Your task to perform on an android device: Clear the shopping cart on target.com. Search for jbl flip 4 on target.com, select the first entry, add it to the cart, then select checkout. Image 0: 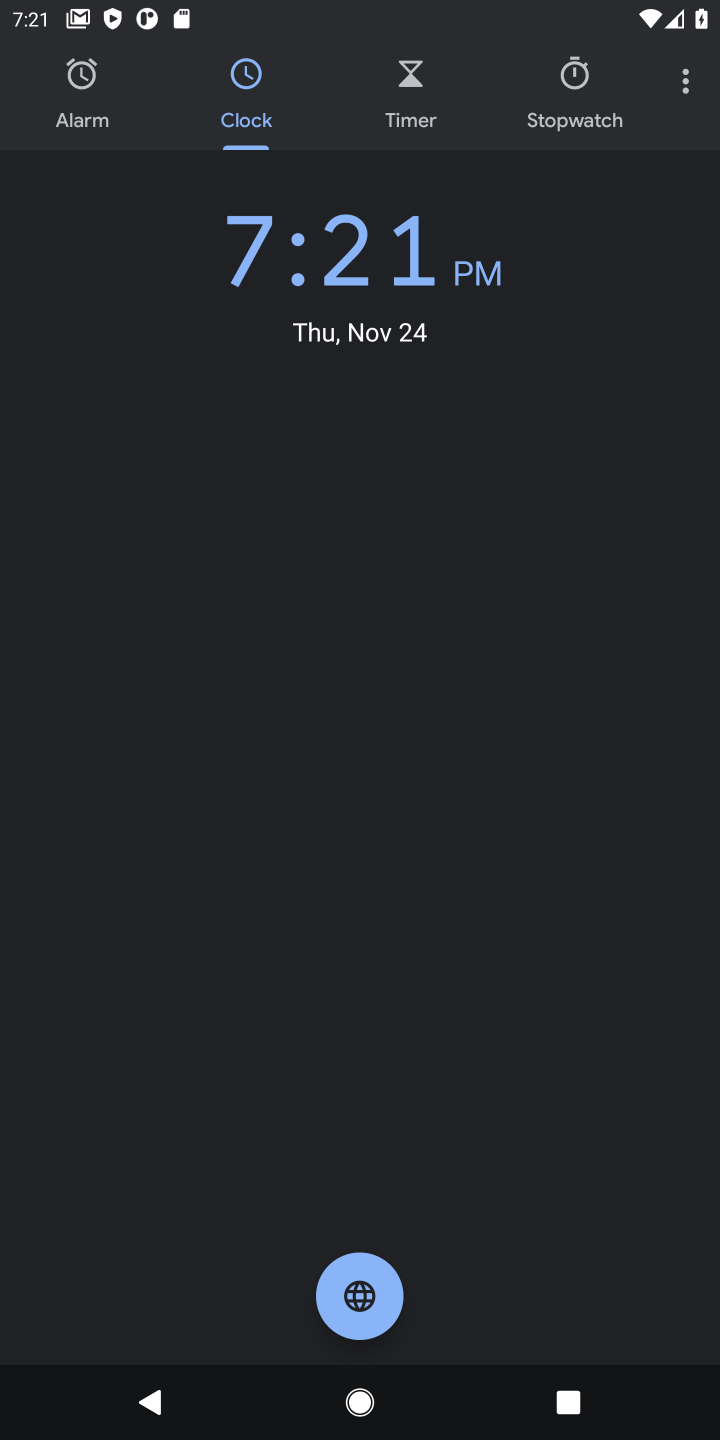
Step 0: press home button
Your task to perform on an android device: Clear the shopping cart on target.com. Search for jbl flip 4 on target.com, select the first entry, add it to the cart, then select checkout. Image 1: 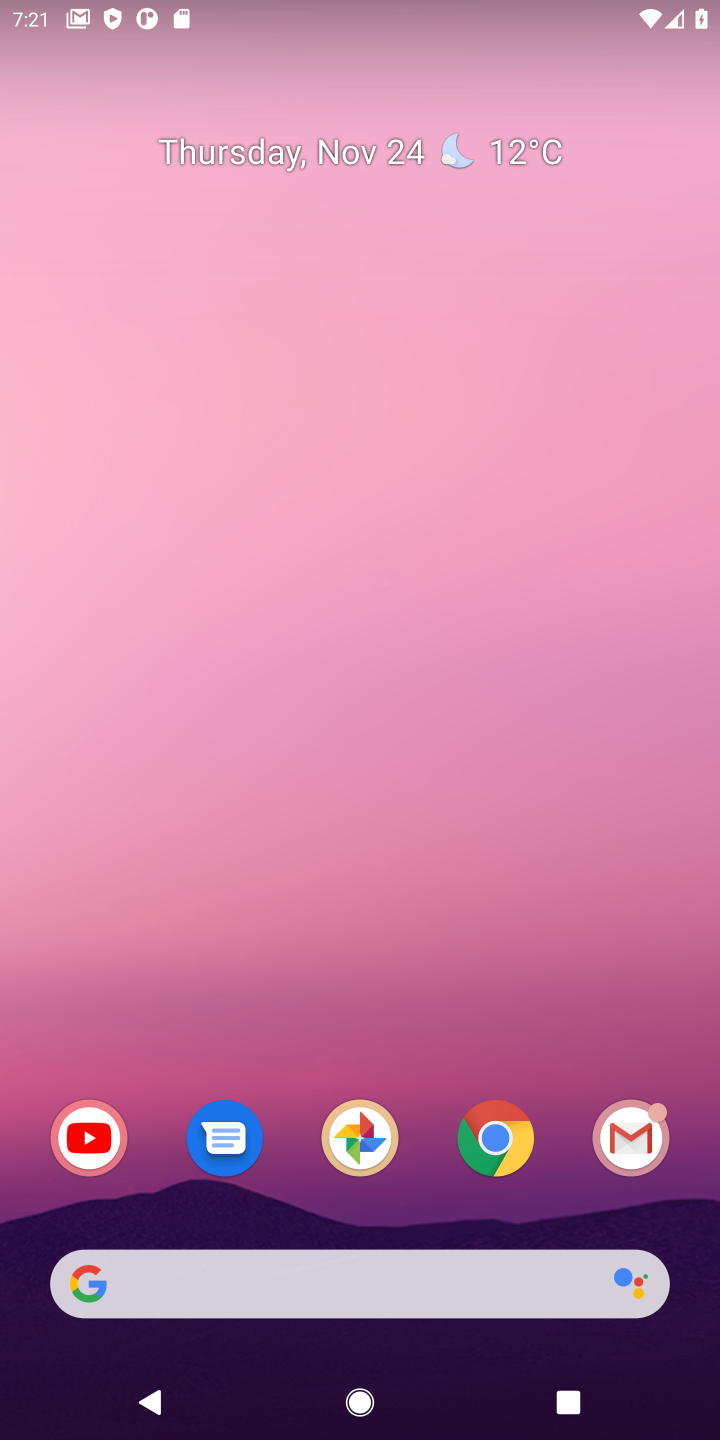
Step 1: click (460, 1150)
Your task to perform on an android device: Clear the shopping cart on target.com. Search for jbl flip 4 on target.com, select the first entry, add it to the cart, then select checkout. Image 2: 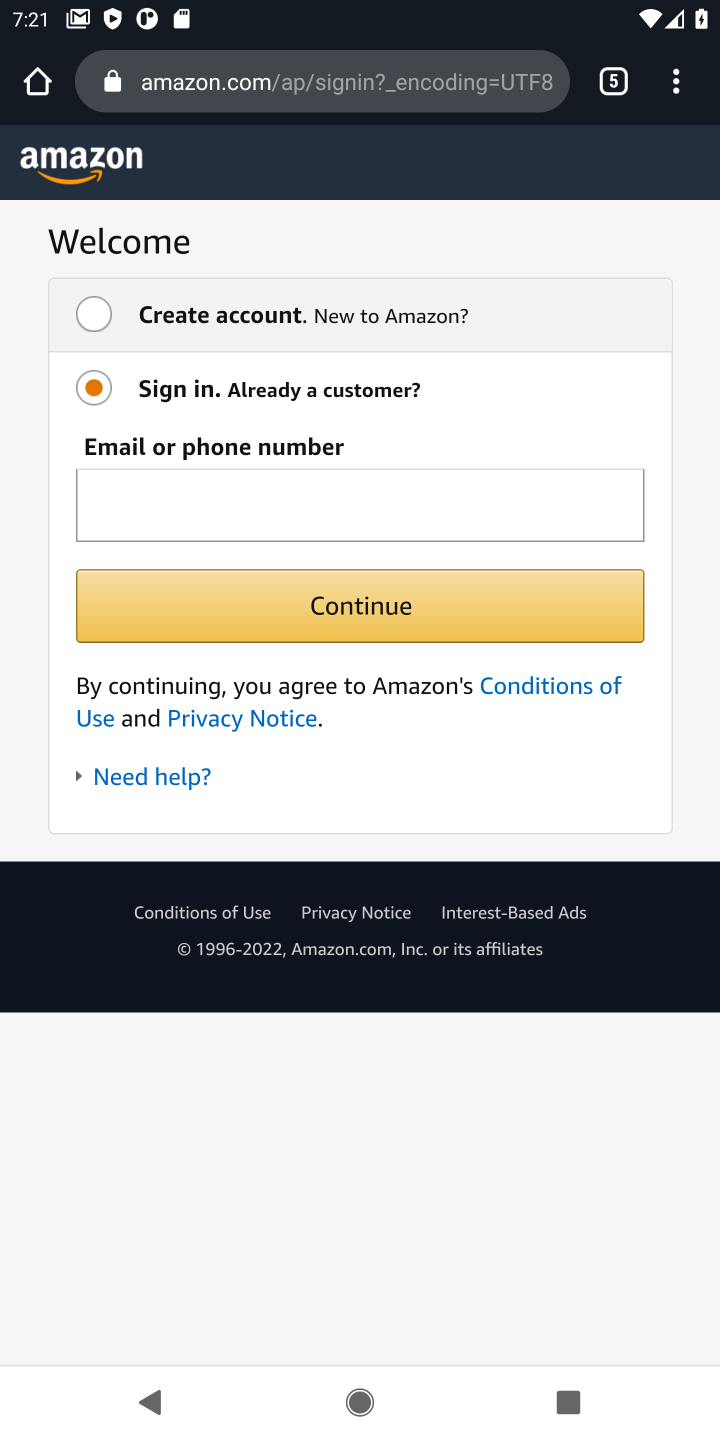
Step 2: click (604, 84)
Your task to perform on an android device: Clear the shopping cart on target.com. Search for jbl flip 4 on target.com, select the first entry, add it to the cart, then select checkout. Image 3: 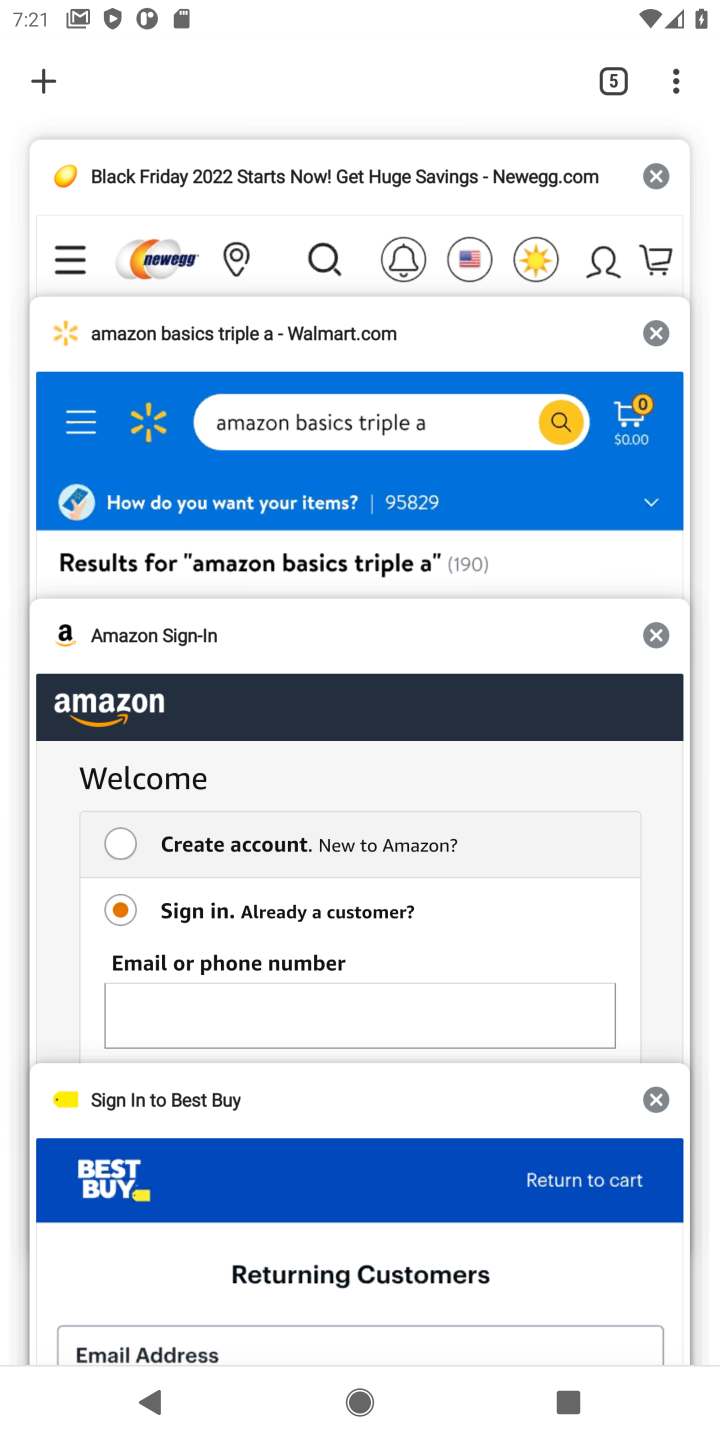
Step 3: click (30, 75)
Your task to perform on an android device: Clear the shopping cart on target.com. Search for jbl flip 4 on target.com, select the first entry, add it to the cart, then select checkout. Image 4: 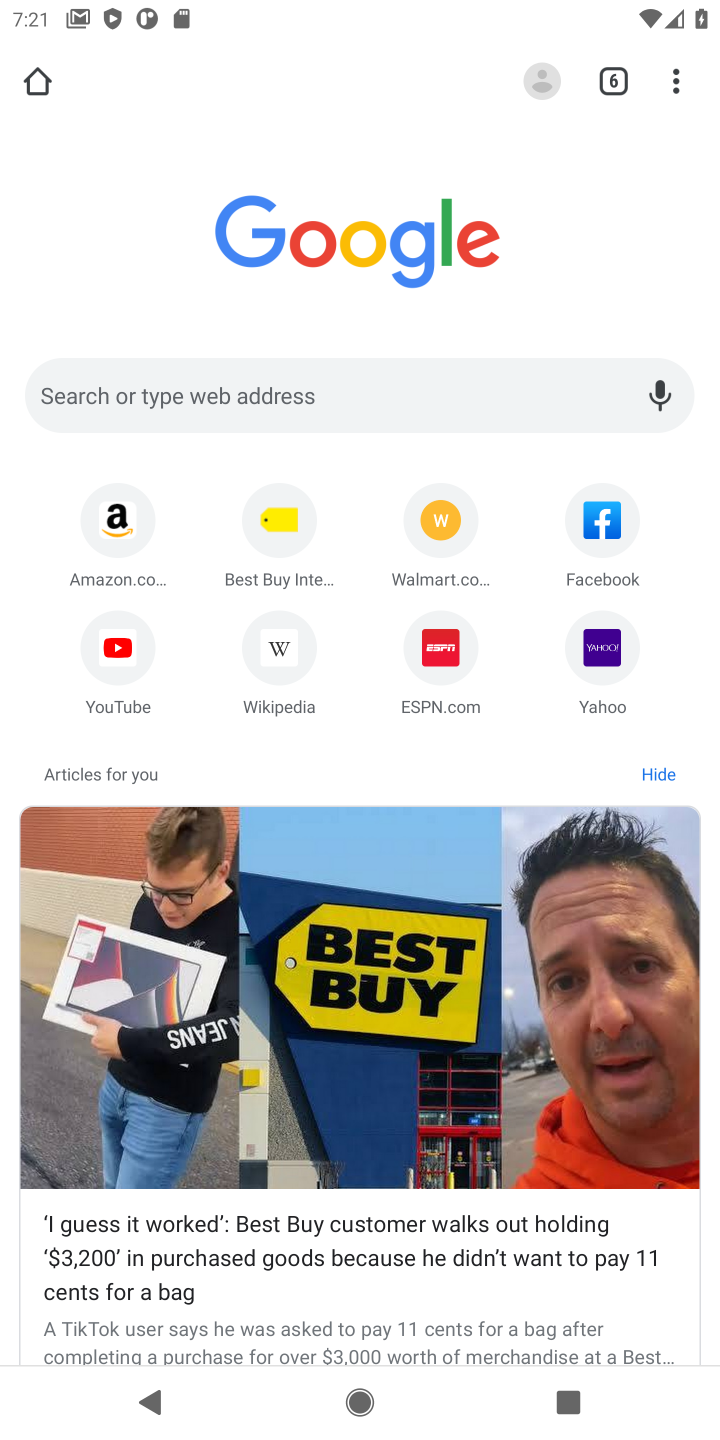
Step 4: click (272, 374)
Your task to perform on an android device: Clear the shopping cart on target.com. Search for jbl flip 4 on target.com, select the first entry, add it to the cart, then select checkout. Image 5: 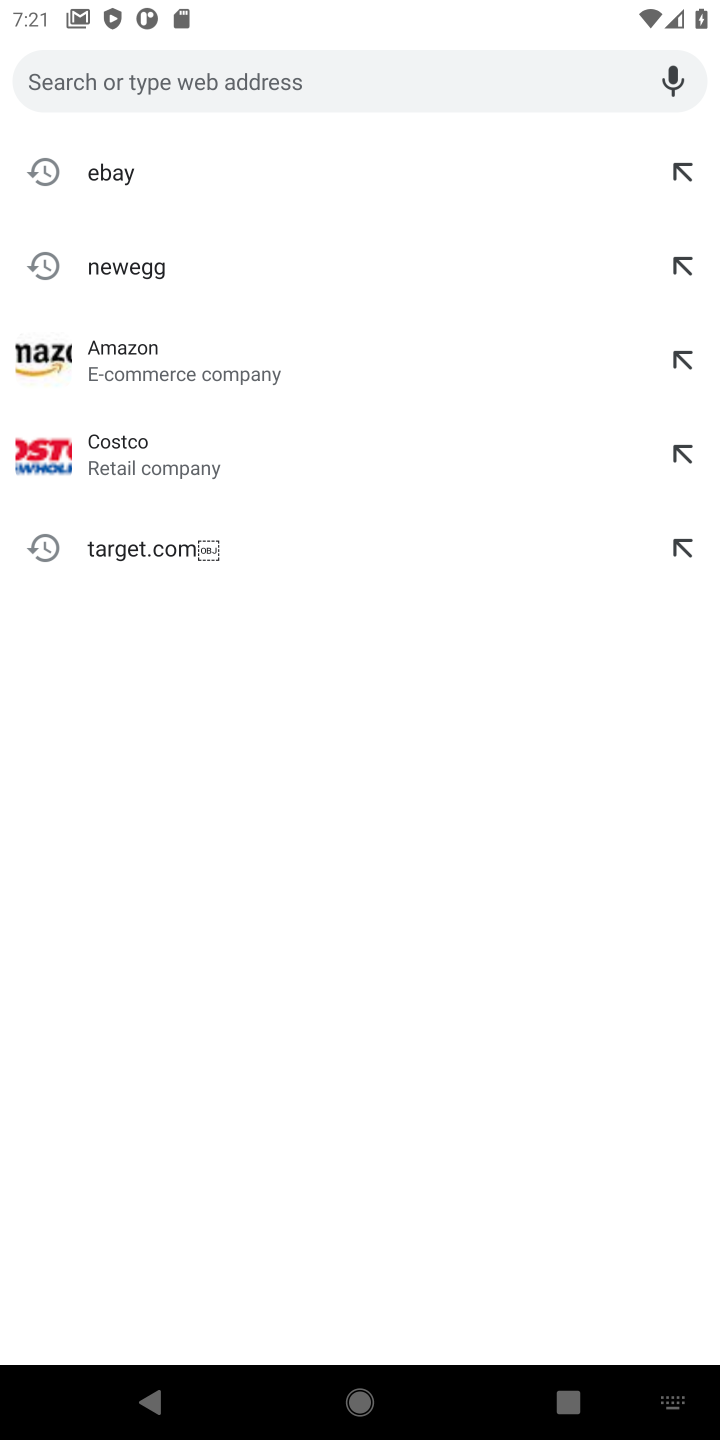
Step 5: click (114, 552)
Your task to perform on an android device: Clear the shopping cart on target.com. Search for jbl flip 4 on target.com, select the first entry, add it to the cart, then select checkout. Image 6: 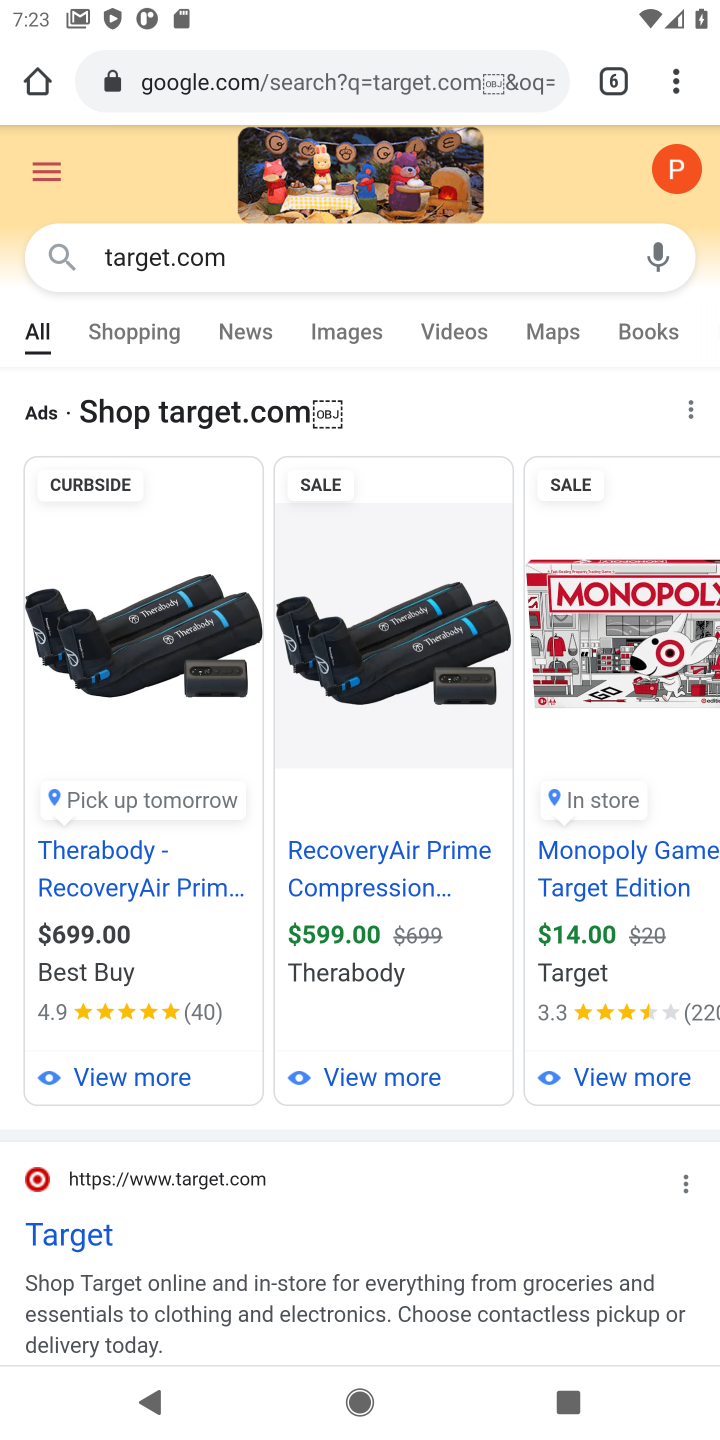
Step 6: click (47, 1226)
Your task to perform on an android device: Clear the shopping cart on target.com. Search for jbl flip 4 on target.com, select the first entry, add it to the cart, then select checkout. Image 7: 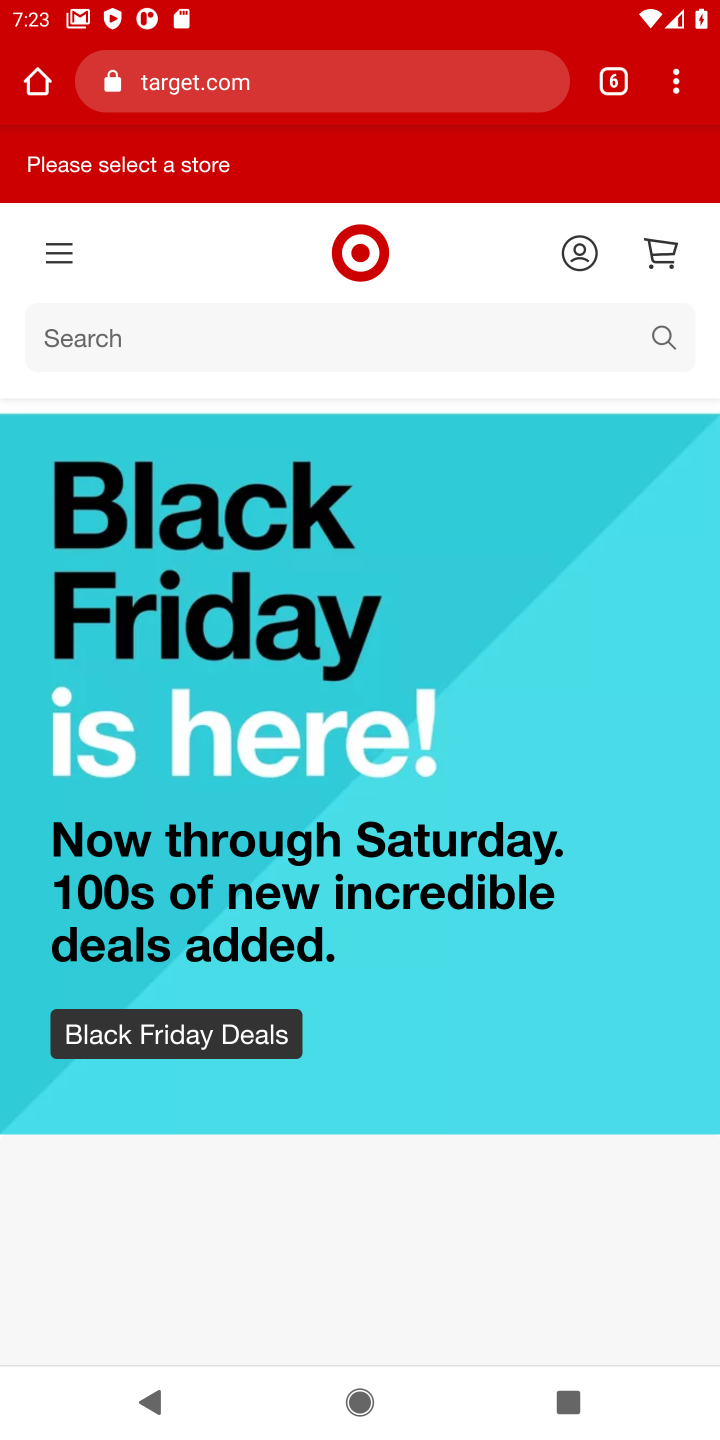
Step 7: click (643, 254)
Your task to perform on an android device: Clear the shopping cart on target.com. Search for jbl flip 4 on target.com, select the first entry, add it to the cart, then select checkout. Image 8: 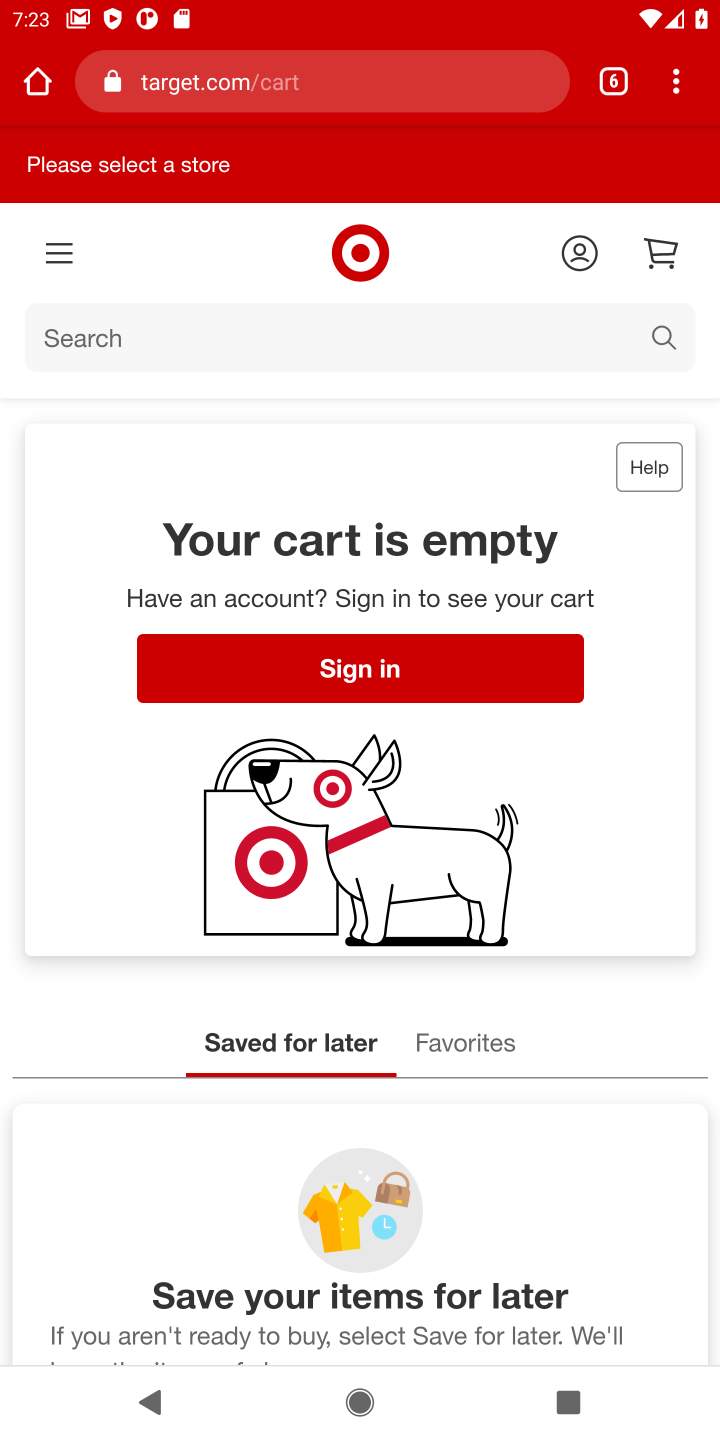
Step 8: click (296, 354)
Your task to perform on an android device: Clear the shopping cart on target.com. Search for jbl flip 4 on target.com, select the first entry, add it to the cart, then select checkout. Image 9: 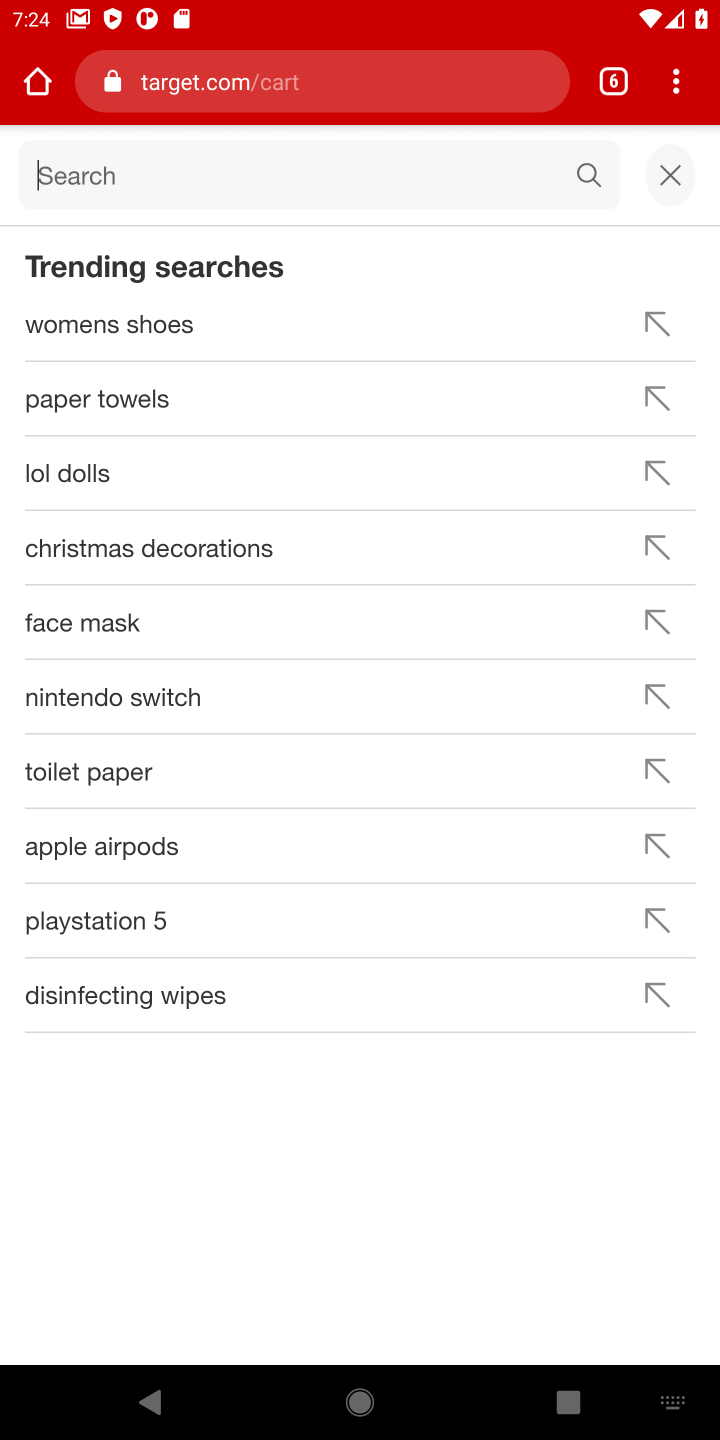
Step 9: click (103, 166)
Your task to perform on an android device: Clear the shopping cart on target.com. Search for jbl flip 4 on target.com, select the first entry, add it to the cart, then select checkout. Image 10: 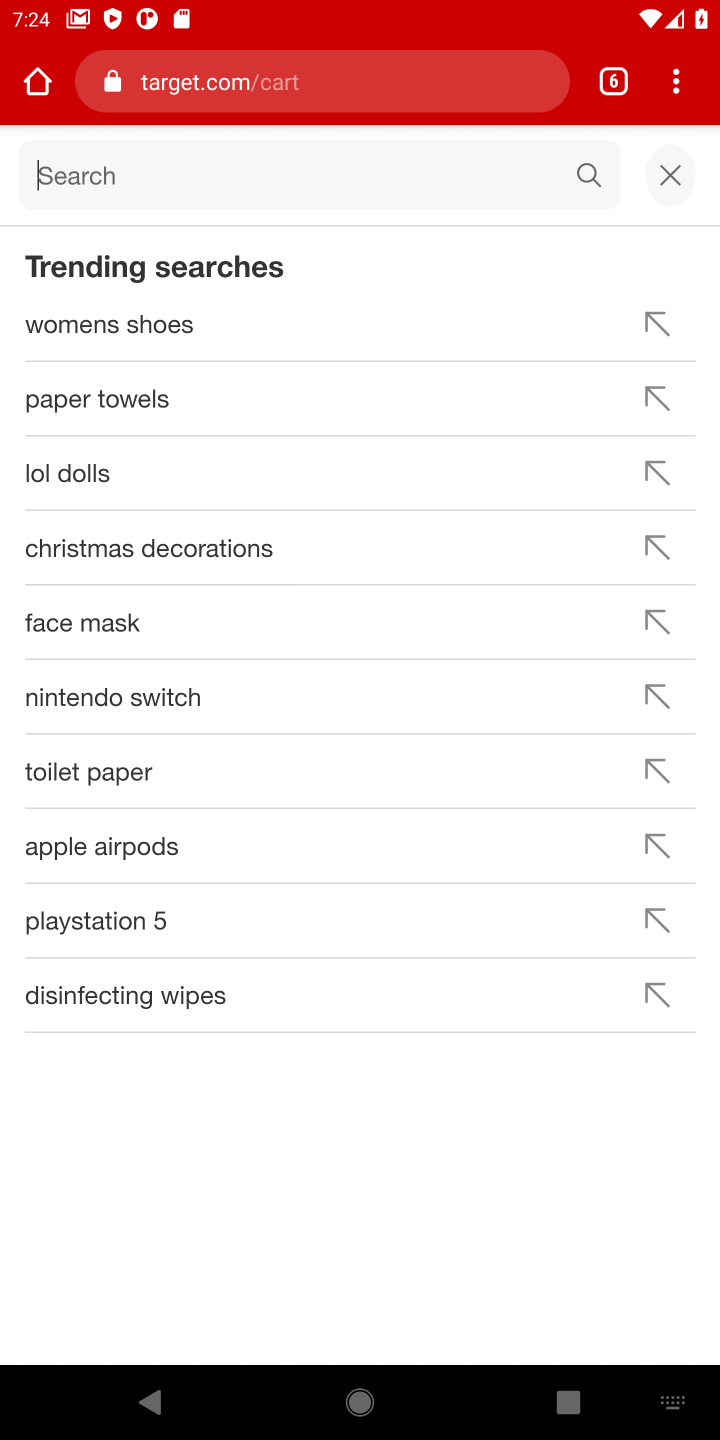
Step 10: type " jbl flip 4 "
Your task to perform on an android device: Clear the shopping cart on target.com. Search for jbl flip 4 on target.com, select the first entry, add it to the cart, then select checkout. Image 11: 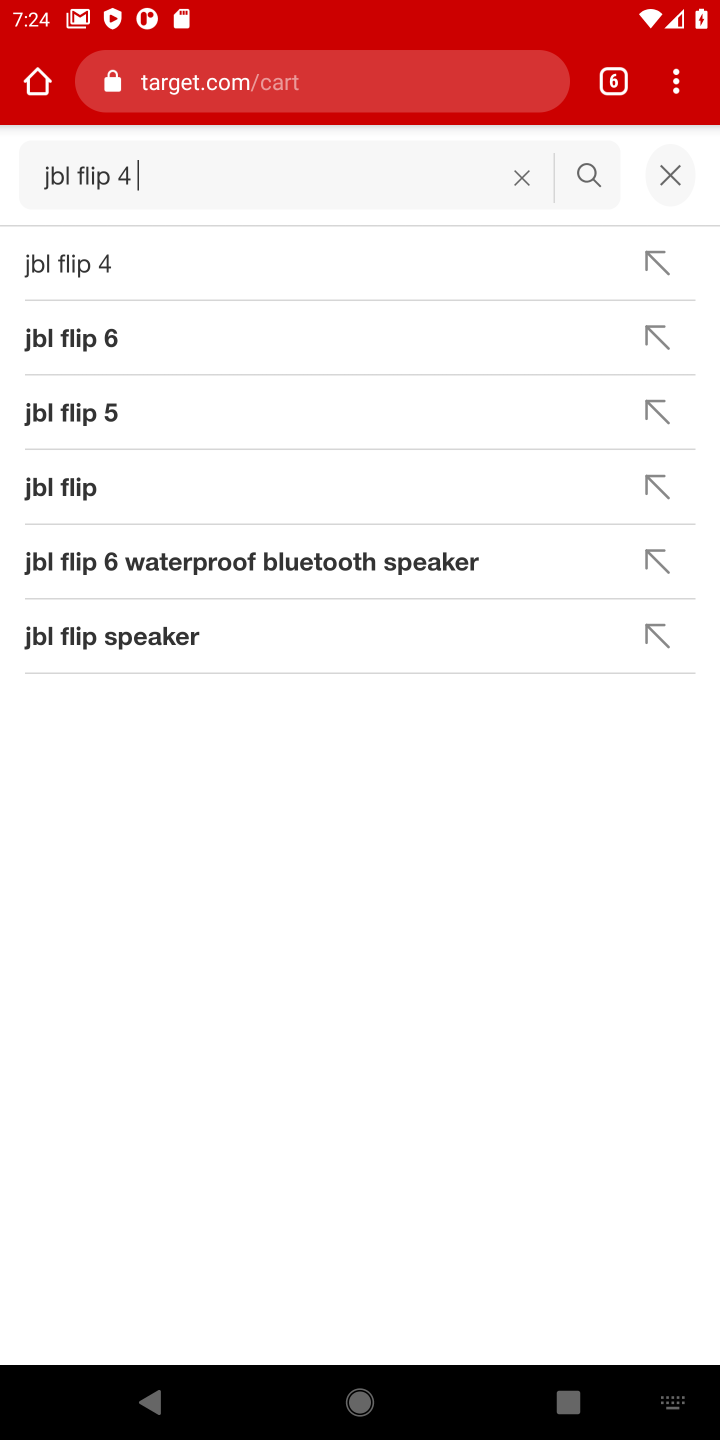
Step 11: click (240, 262)
Your task to perform on an android device: Clear the shopping cart on target.com. Search for jbl flip 4 on target.com, select the first entry, add it to the cart, then select checkout. Image 12: 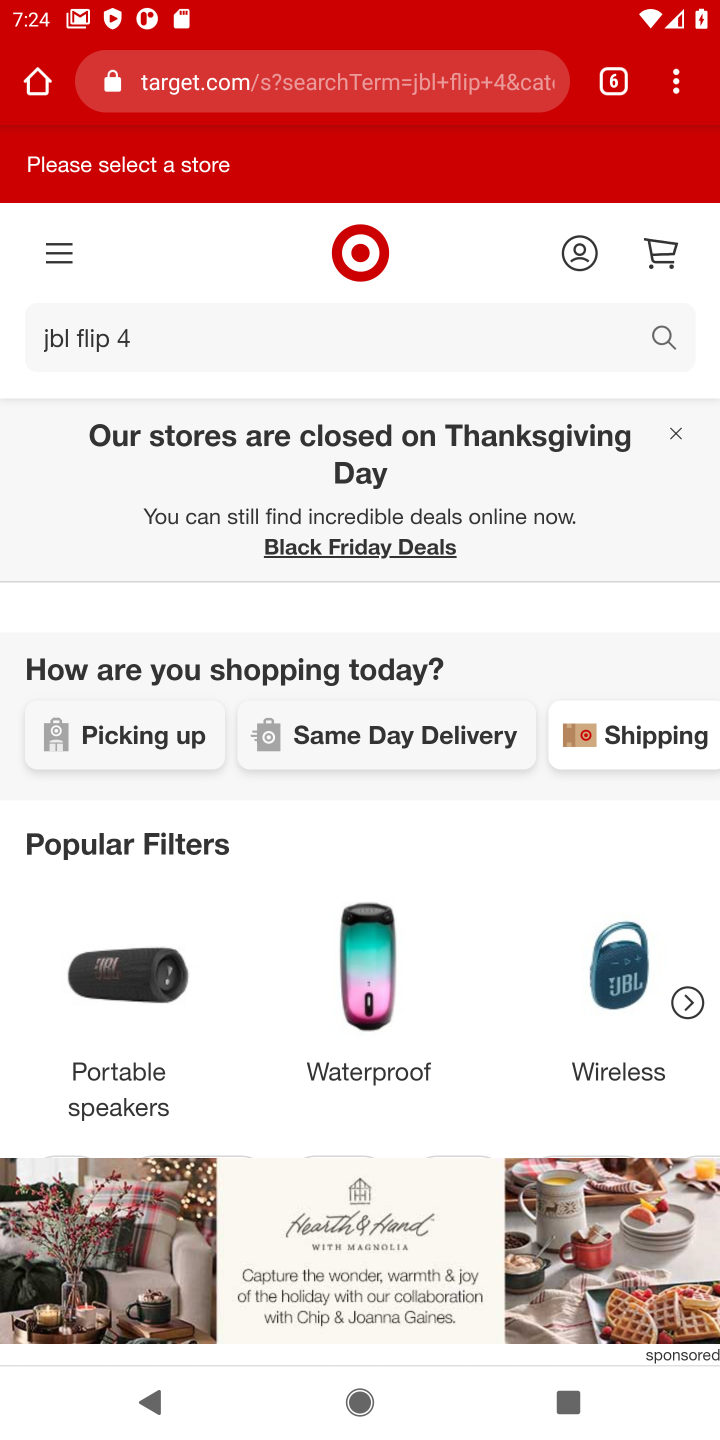
Step 12: task complete